Your task to perform on an android device: Go to Maps Image 0: 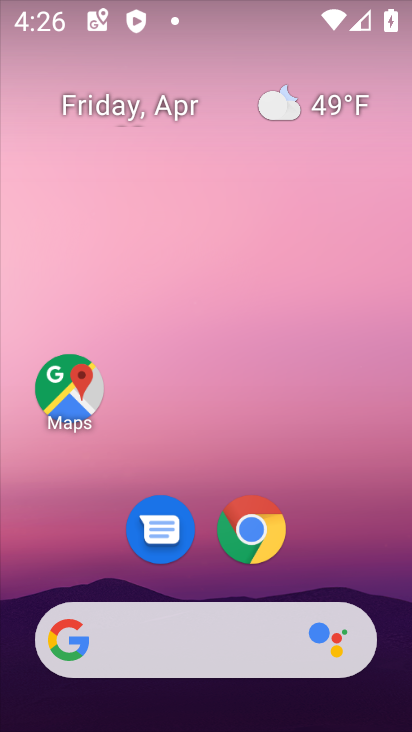
Step 0: drag from (231, 715) to (204, 176)
Your task to perform on an android device: Go to Maps Image 1: 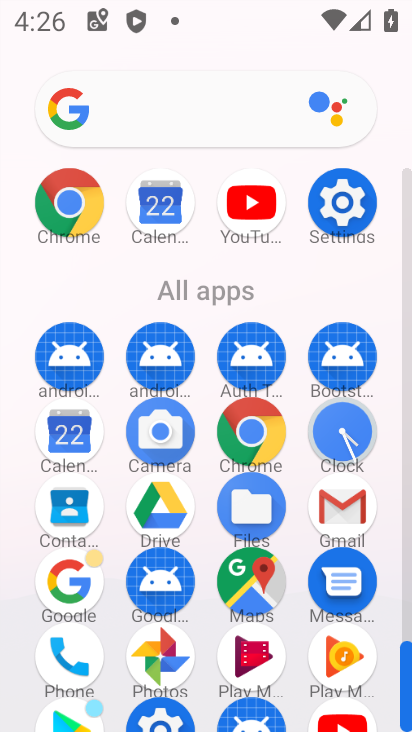
Step 1: click (259, 579)
Your task to perform on an android device: Go to Maps Image 2: 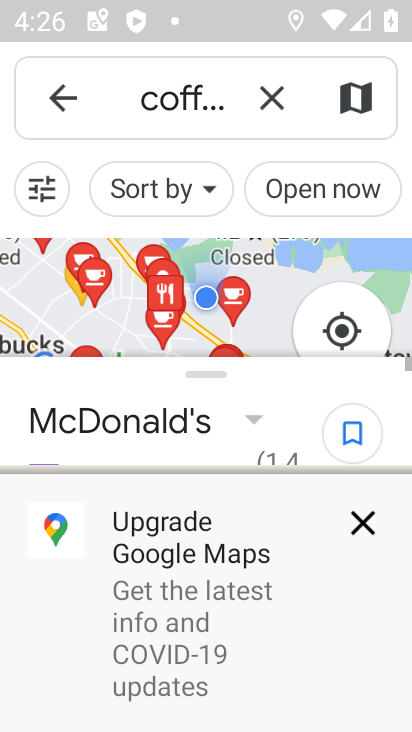
Step 2: task complete